Your task to perform on an android device: Open the phone app and click the voicemail tab. Image 0: 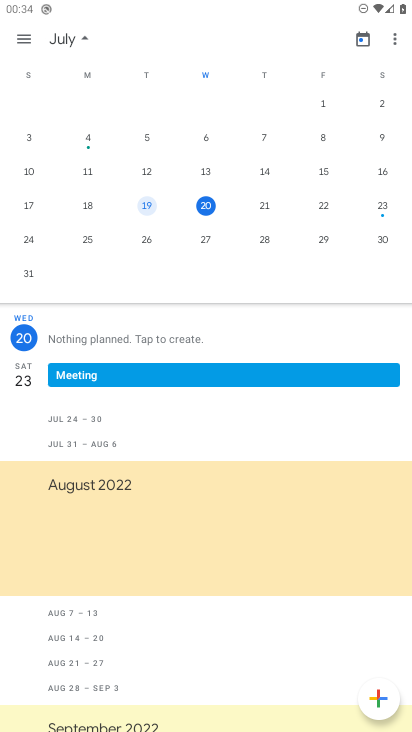
Step 0: press home button
Your task to perform on an android device: Open the phone app and click the voicemail tab. Image 1: 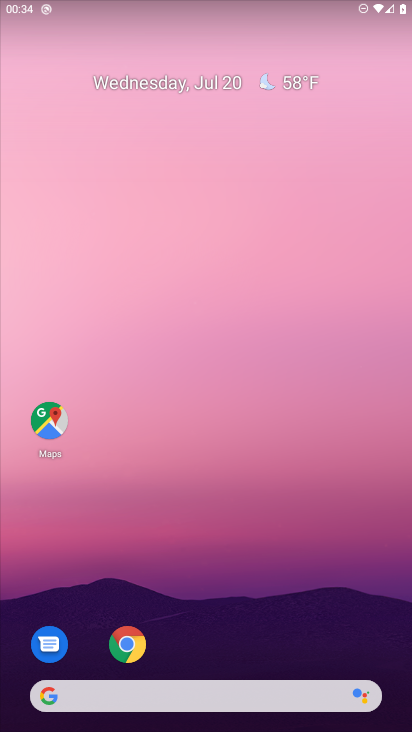
Step 1: drag from (21, 680) to (316, 209)
Your task to perform on an android device: Open the phone app and click the voicemail tab. Image 2: 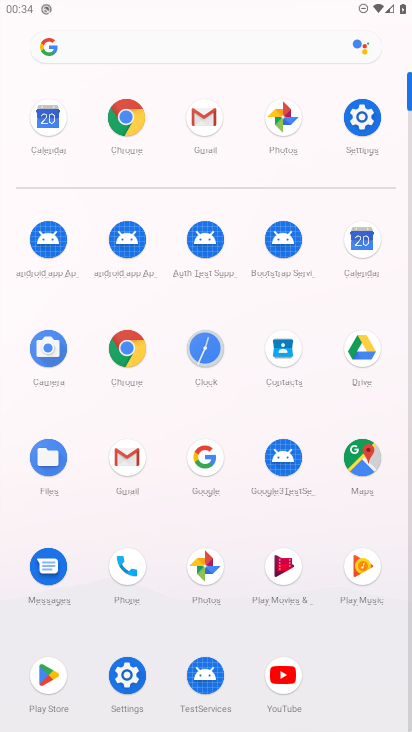
Step 2: click (127, 573)
Your task to perform on an android device: Open the phone app and click the voicemail tab. Image 3: 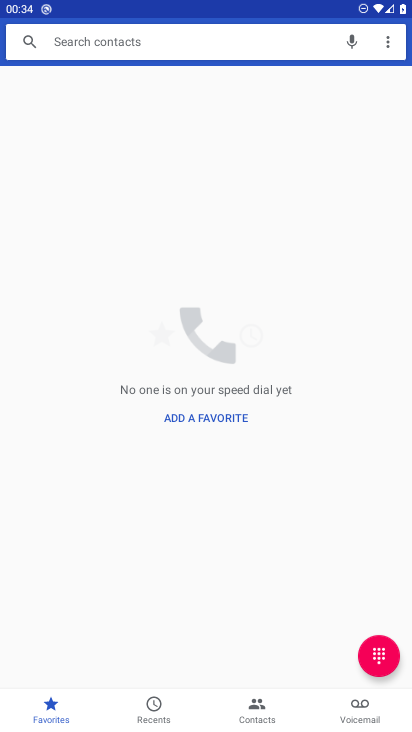
Step 3: click (359, 717)
Your task to perform on an android device: Open the phone app and click the voicemail tab. Image 4: 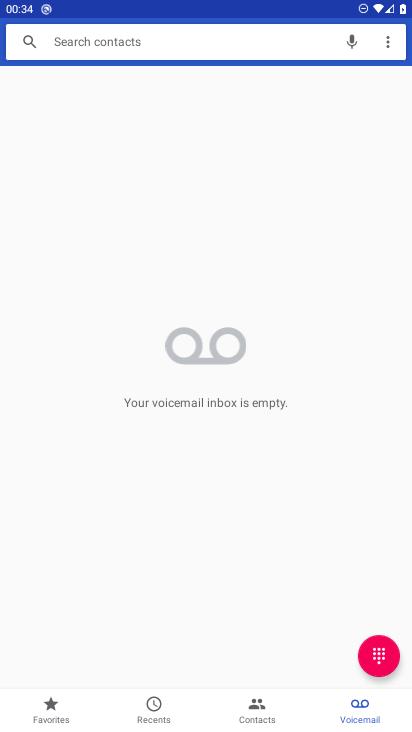
Step 4: task complete